Your task to perform on an android device: Go to Google maps Image 0: 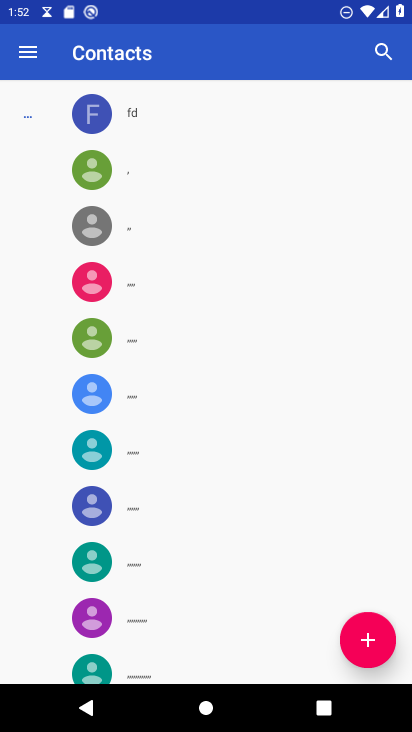
Step 0: press home button
Your task to perform on an android device: Go to Google maps Image 1: 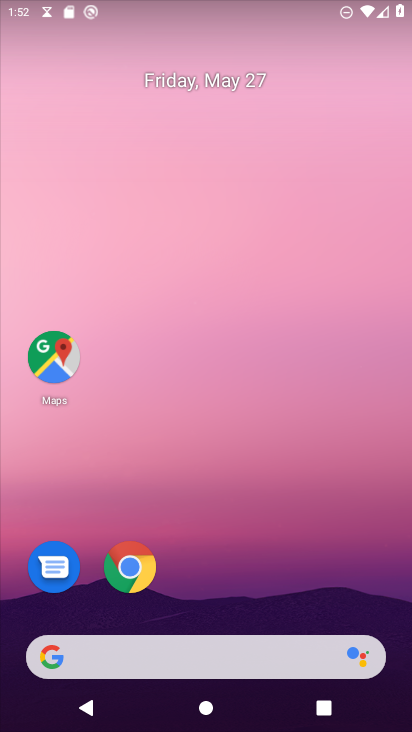
Step 1: click (54, 341)
Your task to perform on an android device: Go to Google maps Image 2: 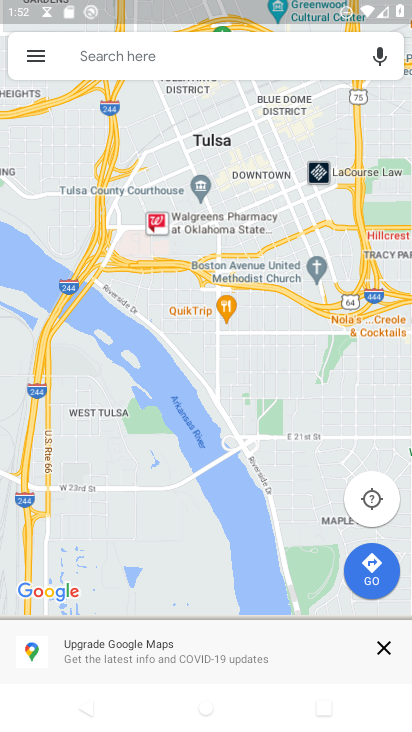
Step 2: task complete